Your task to perform on an android device: Open calendar and show me the first week of next month Image 0: 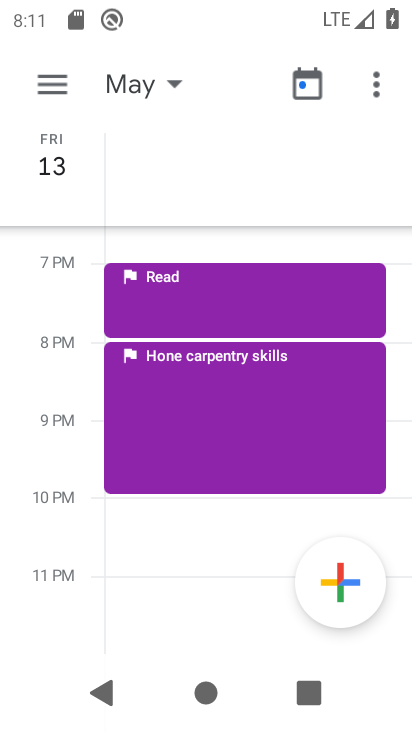
Step 0: press home button
Your task to perform on an android device: Open calendar and show me the first week of next month Image 1: 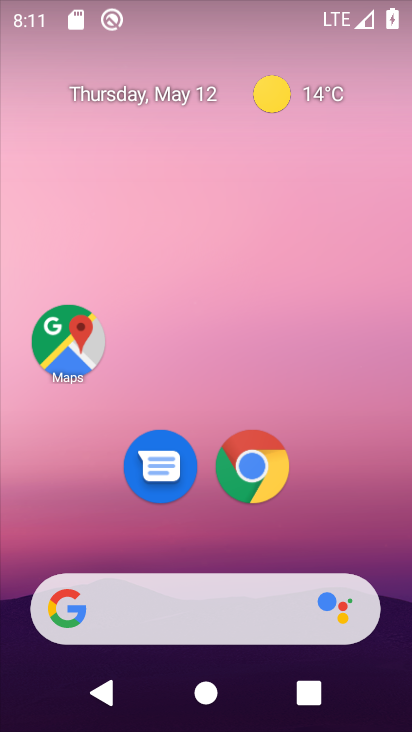
Step 1: drag from (216, 538) to (253, 12)
Your task to perform on an android device: Open calendar and show me the first week of next month Image 2: 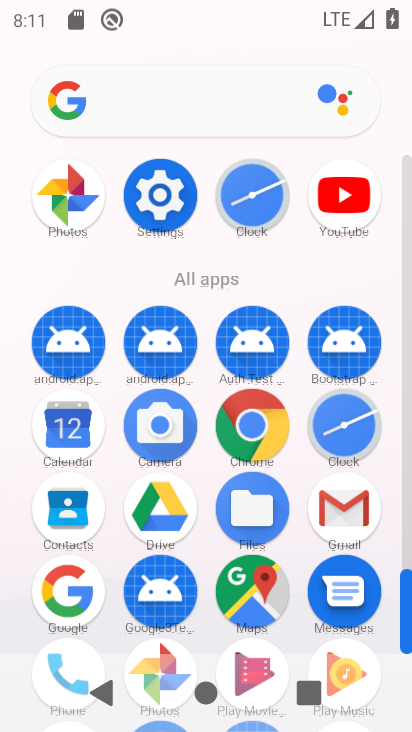
Step 2: click (70, 421)
Your task to perform on an android device: Open calendar and show me the first week of next month Image 3: 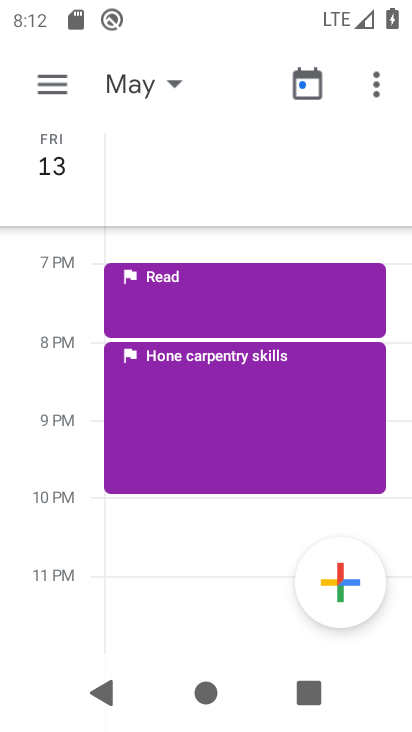
Step 3: click (159, 79)
Your task to perform on an android device: Open calendar and show me the first week of next month Image 4: 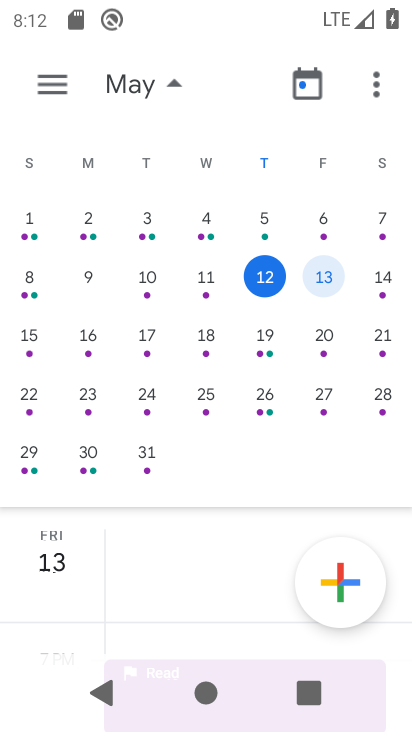
Step 4: drag from (370, 319) to (11, 337)
Your task to perform on an android device: Open calendar and show me the first week of next month Image 5: 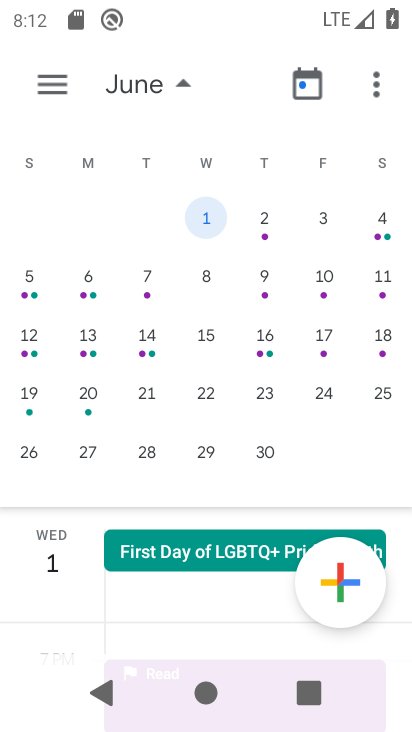
Step 5: click (26, 275)
Your task to perform on an android device: Open calendar and show me the first week of next month Image 6: 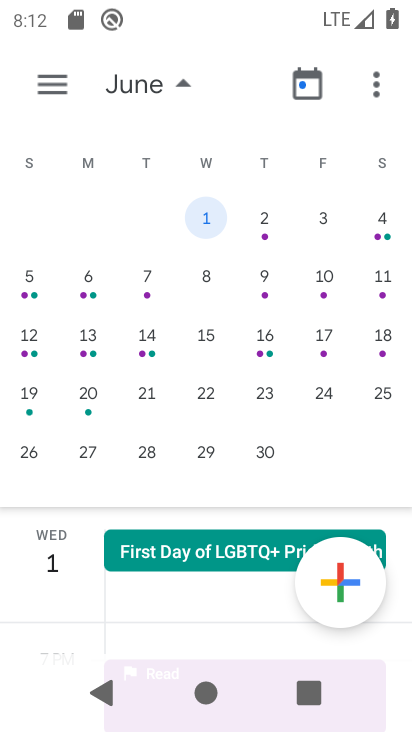
Step 6: click (29, 276)
Your task to perform on an android device: Open calendar and show me the first week of next month Image 7: 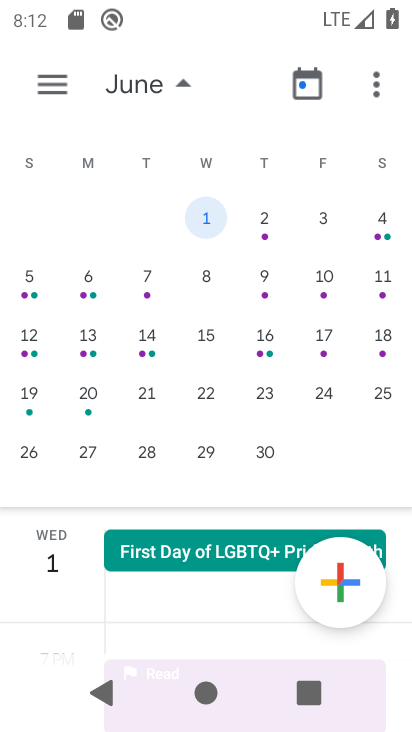
Step 7: click (25, 281)
Your task to perform on an android device: Open calendar and show me the first week of next month Image 8: 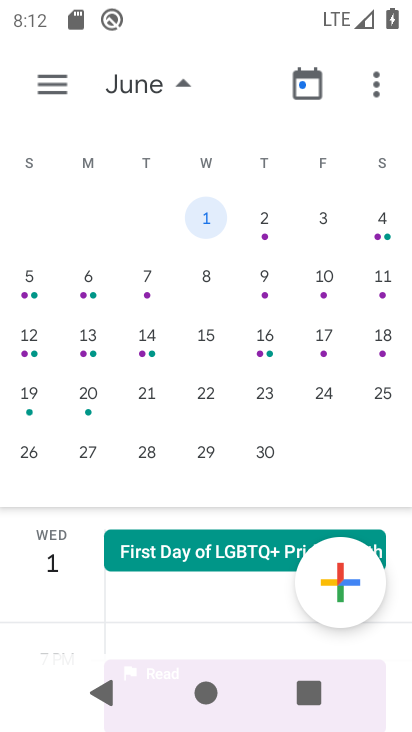
Step 8: click (43, 277)
Your task to perform on an android device: Open calendar and show me the first week of next month Image 9: 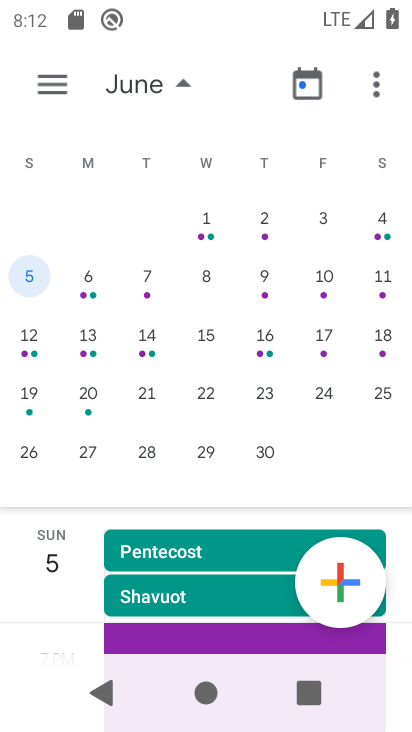
Step 9: click (176, 82)
Your task to perform on an android device: Open calendar and show me the first week of next month Image 10: 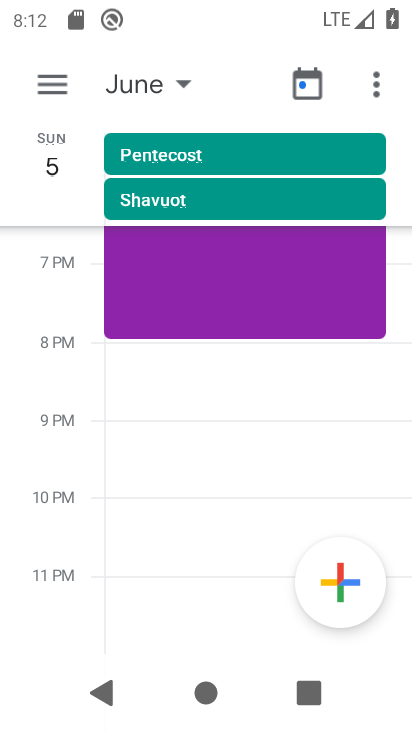
Step 10: click (82, 177)
Your task to perform on an android device: Open calendar and show me the first week of next month Image 11: 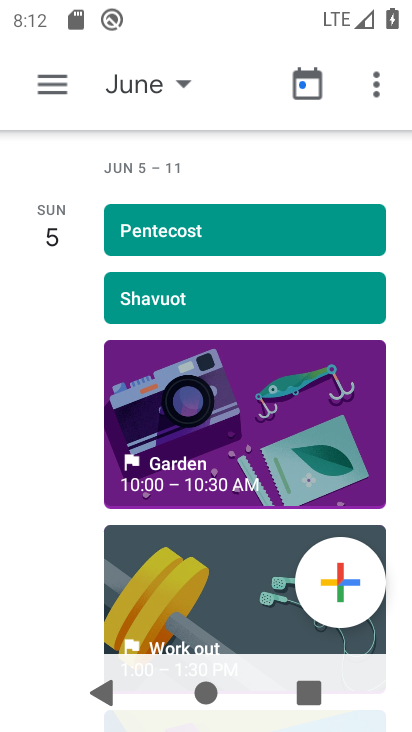
Step 11: task complete